Your task to perform on an android device: turn on airplane mode Image 0: 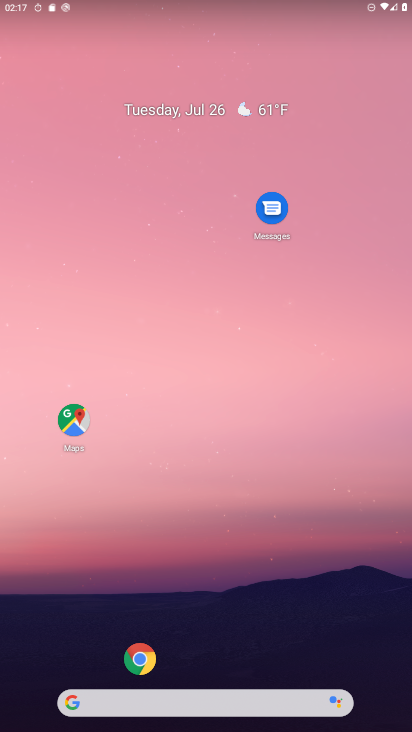
Step 0: click (134, 686)
Your task to perform on an android device: turn on airplane mode Image 1: 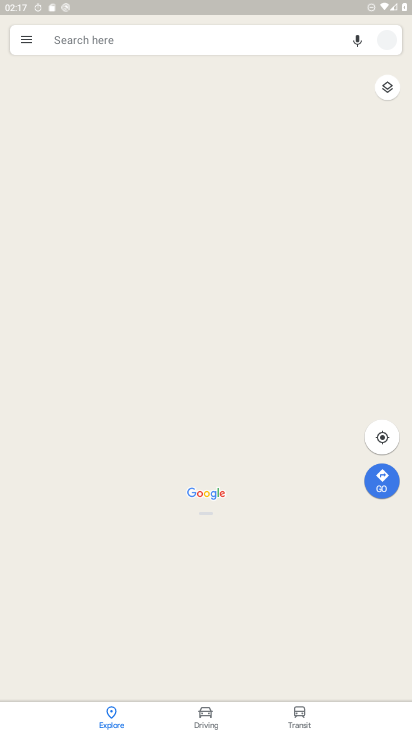
Step 1: press home button
Your task to perform on an android device: turn on airplane mode Image 2: 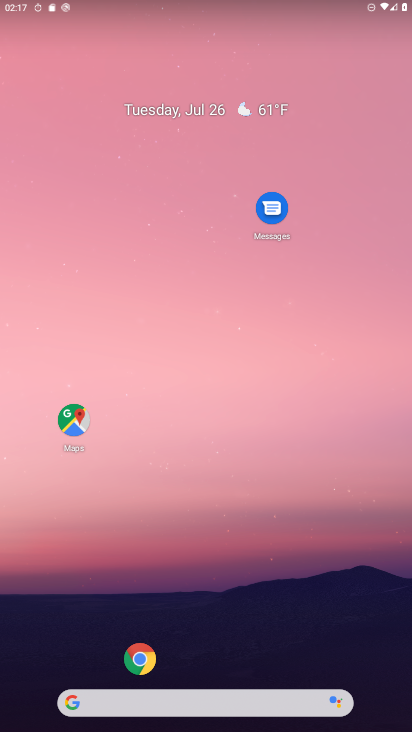
Step 2: drag from (37, 663) to (182, 113)
Your task to perform on an android device: turn on airplane mode Image 3: 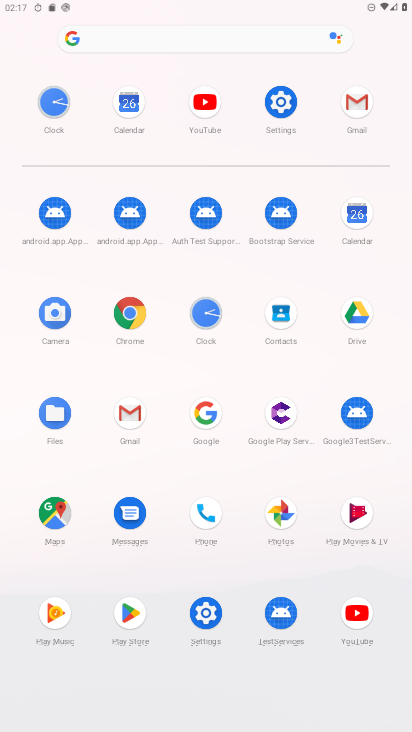
Step 3: click (206, 612)
Your task to perform on an android device: turn on airplane mode Image 4: 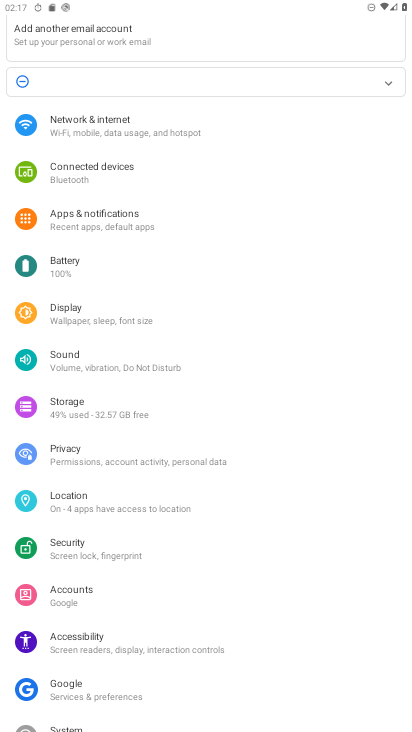
Step 4: click (100, 125)
Your task to perform on an android device: turn on airplane mode Image 5: 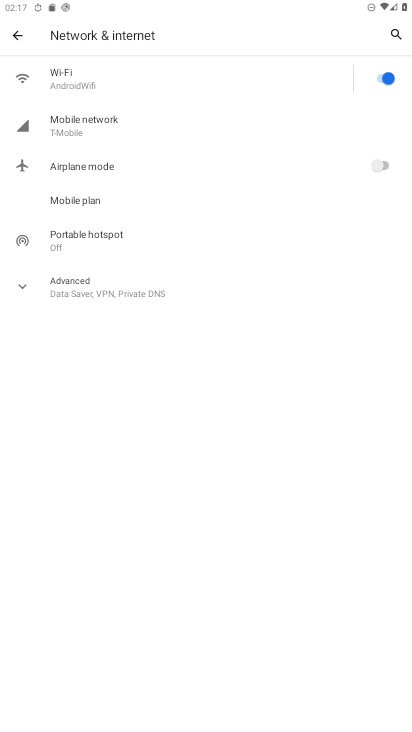
Step 5: click (381, 167)
Your task to perform on an android device: turn on airplane mode Image 6: 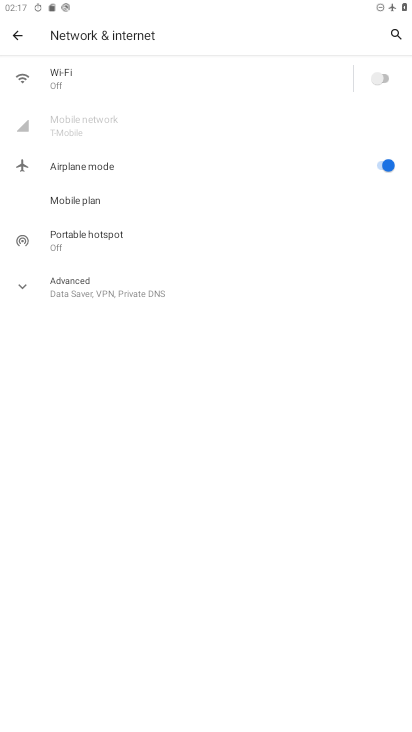
Step 6: task complete